Your task to perform on an android device: toggle airplane mode Image 0: 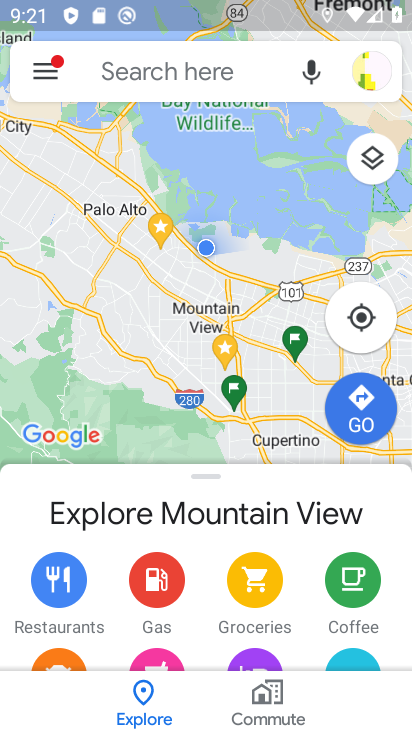
Step 0: press home button
Your task to perform on an android device: toggle airplane mode Image 1: 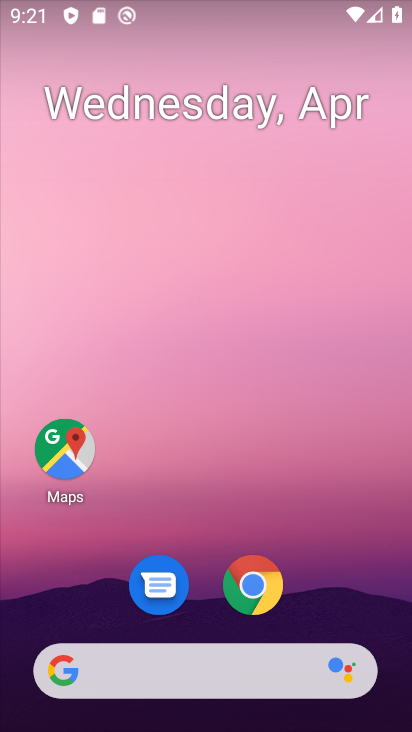
Step 1: click (384, 417)
Your task to perform on an android device: toggle airplane mode Image 2: 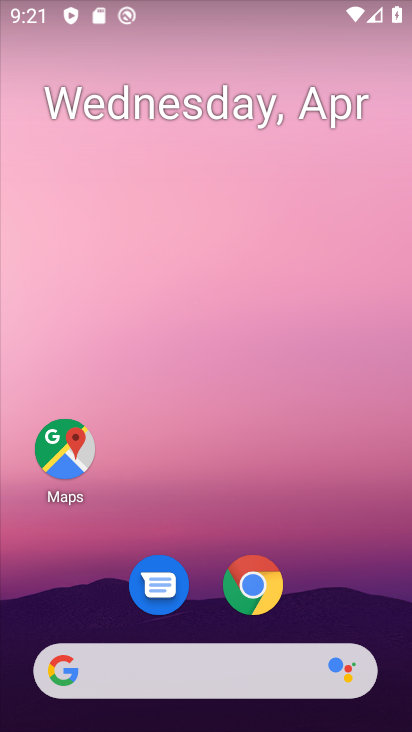
Step 2: drag from (295, 509) to (314, 65)
Your task to perform on an android device: toggle airplane mode Image 3: 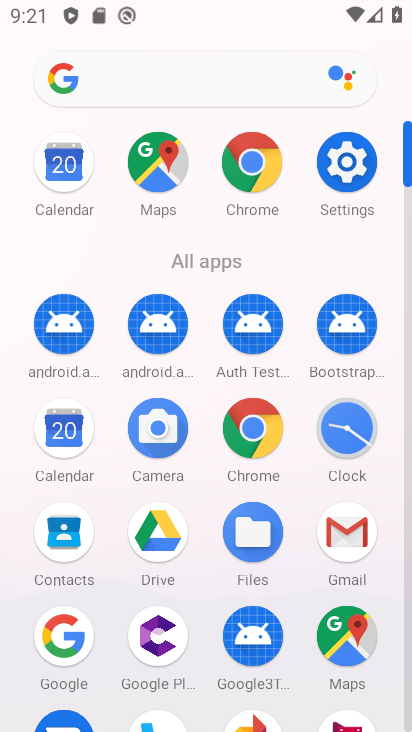
Step 3: click (350, 161)
Your task to perform on an android device: toggle airplane mode Image 4: 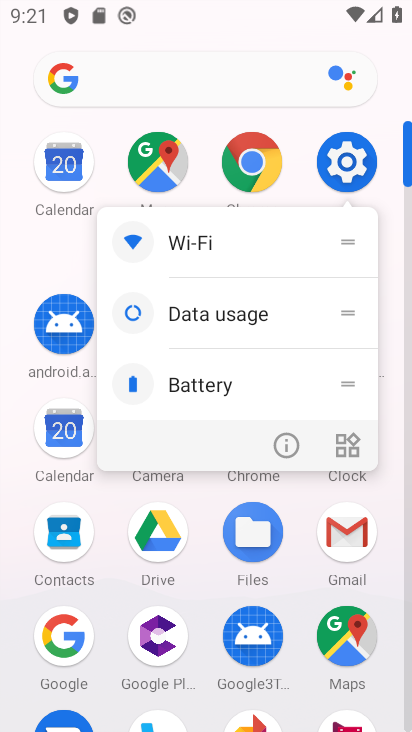
Step 4: click (345, 140)
Your task to perform on an android device: toggle airplane mode Image 5: 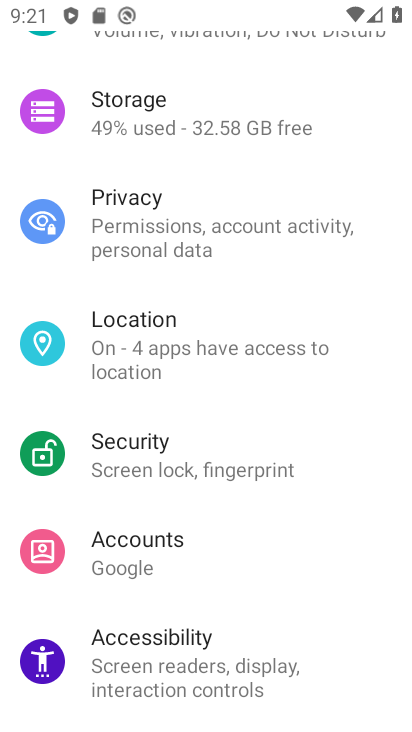
Step 5: drag from (289, 181) to (255, 639)
Your task to perform on an android device: toggle airplane mode Image 6: 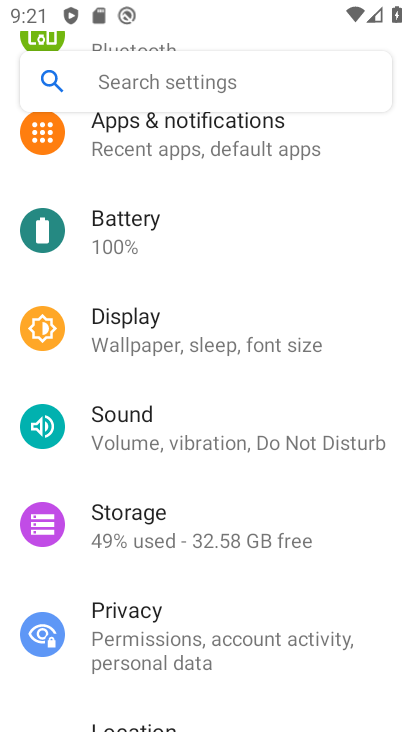
Step 6: drag from (242, 217) to (217, 662)
Your task to perform on an android device: toggle airplane mode Image 7: 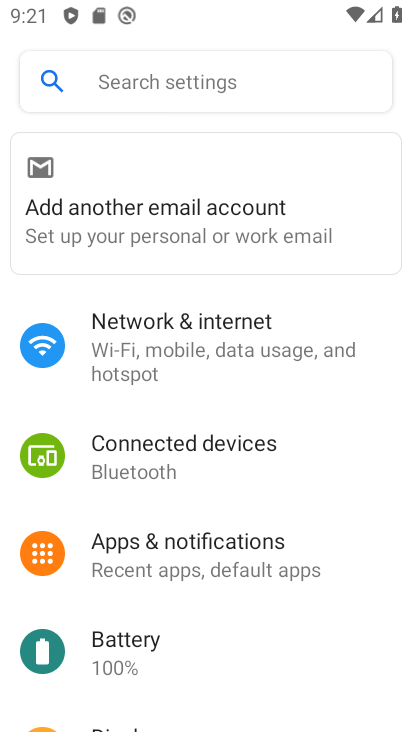
Step 7: click (252, 343)
Your task to perform on an android device: toggle airplane mode Image 8: 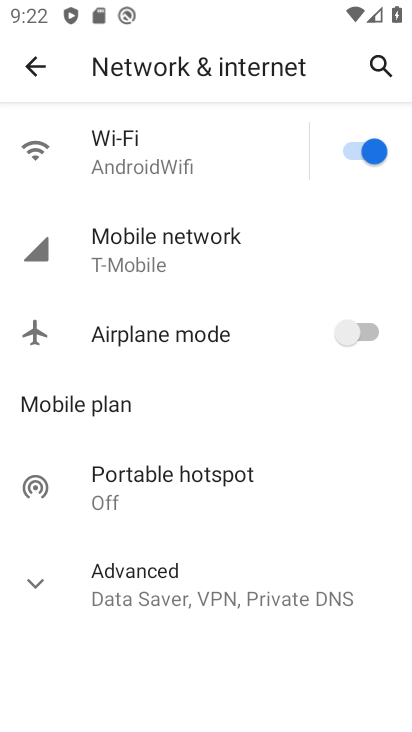
Step 8: click (352, 333)
Your task to perform on an android device: toggle airplane mode Image 9: 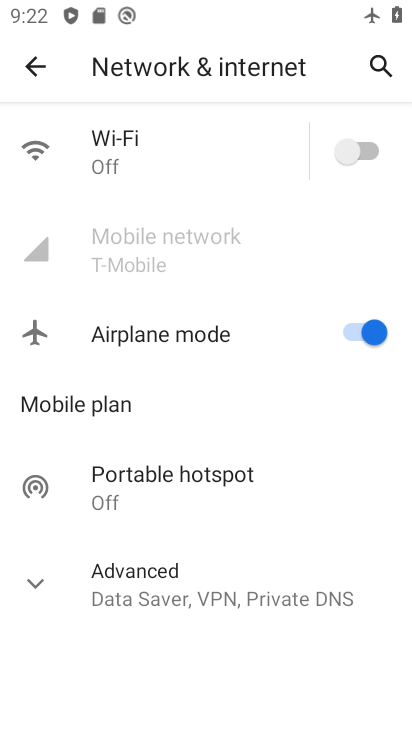
Step 9: task complete